Your task to perform on an android device: Open settings Image 0: 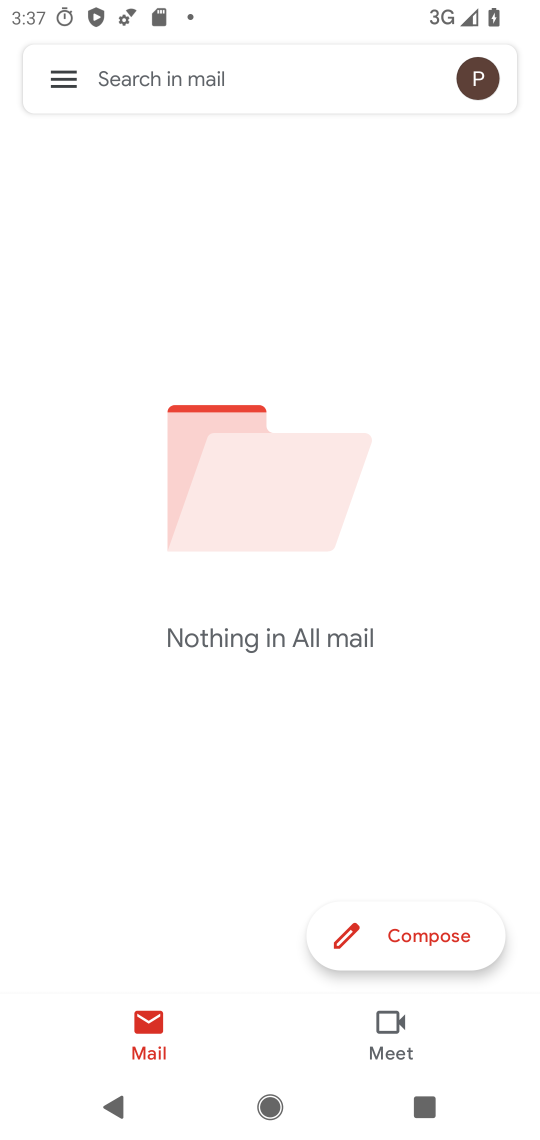
Step 0: press home button
Your task to perform on an android device: Open settings Image 1: 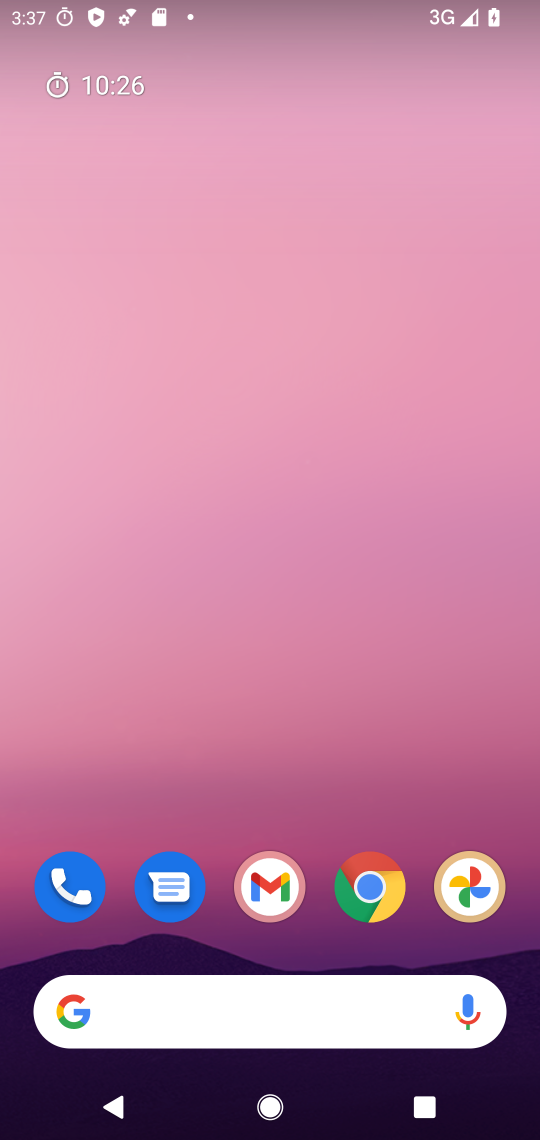
Step 1: drag from (370, 734) to (342, 228)
Your task to perform on an android device: Open settings Image 2: 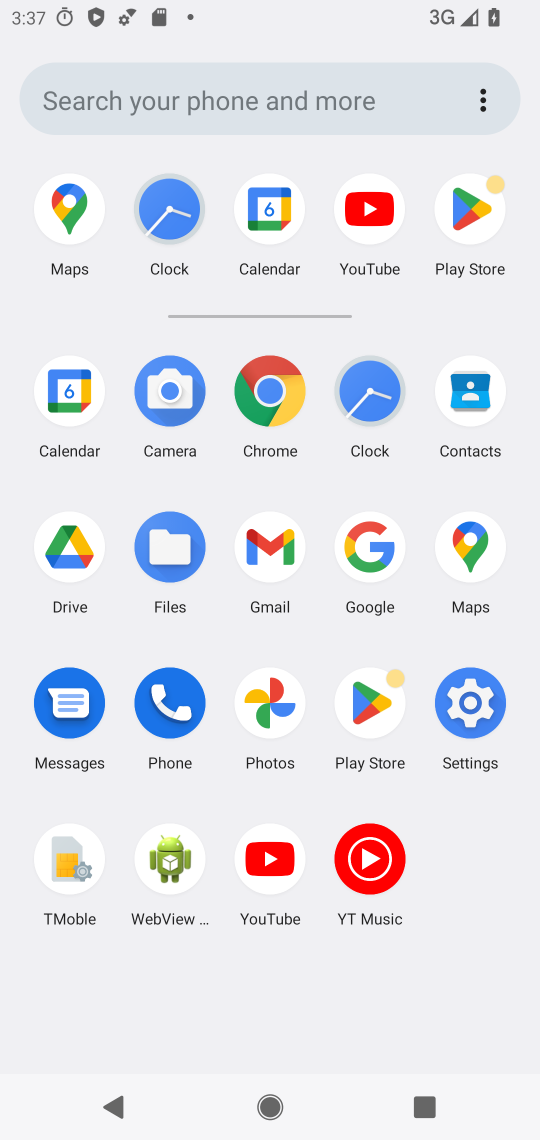
Step 2: click (450, 713)
Your task to perform on an android device: Open settings Image 3: 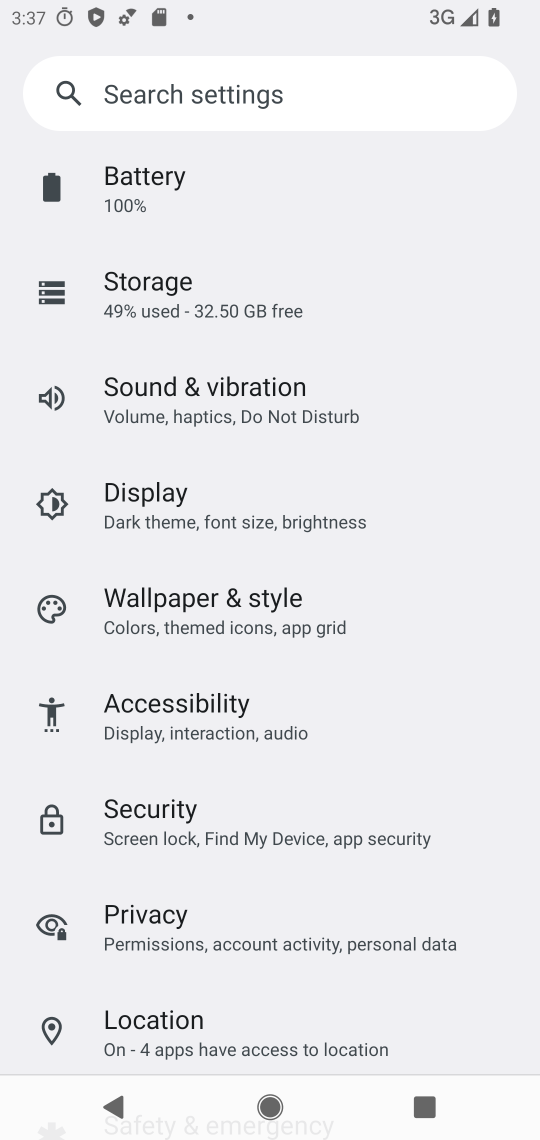
Step 3: task complete